Your task to perform on an android device: Go to eBay Image 0: 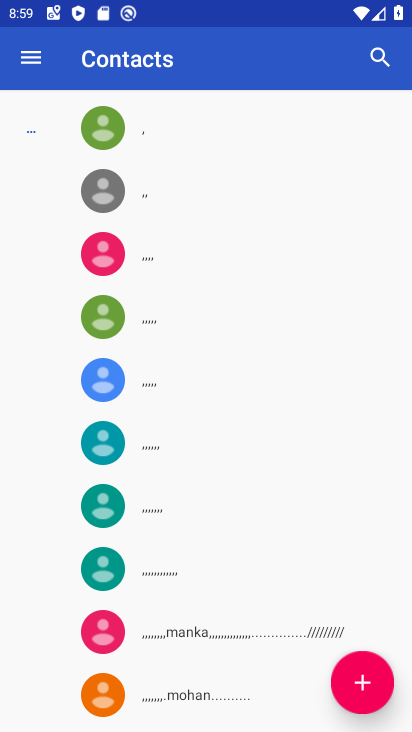
Step 0: press home button
Your task to perform on an android device: Go to eBay Image 1: 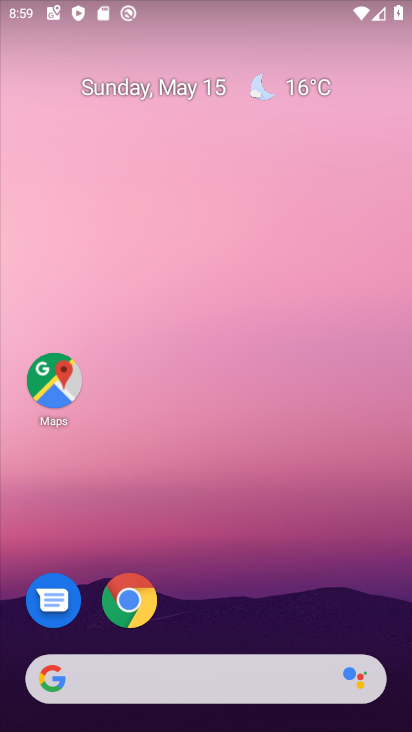
Step 1: drag from (228, 678) to (251, 76)
Your task to perform on an android device: Go to eBay Image 2: 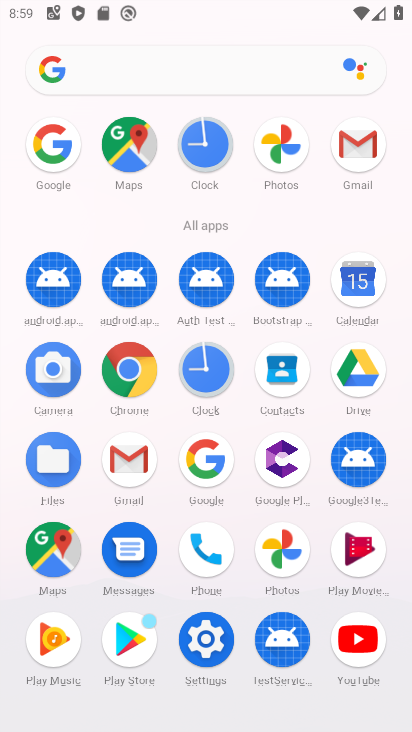
Step 2: click (48, 139)
Your task to perform on an android device: Go to eBay Image 3: 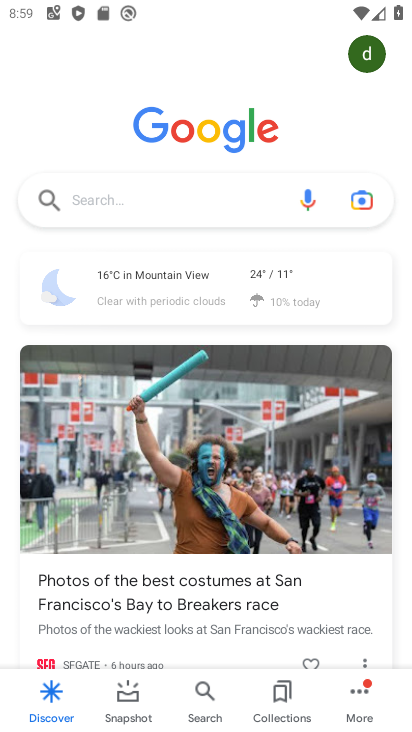
Step 3: click (160, 213)
Your task to perform on an android device: Go to eBay Image 4: 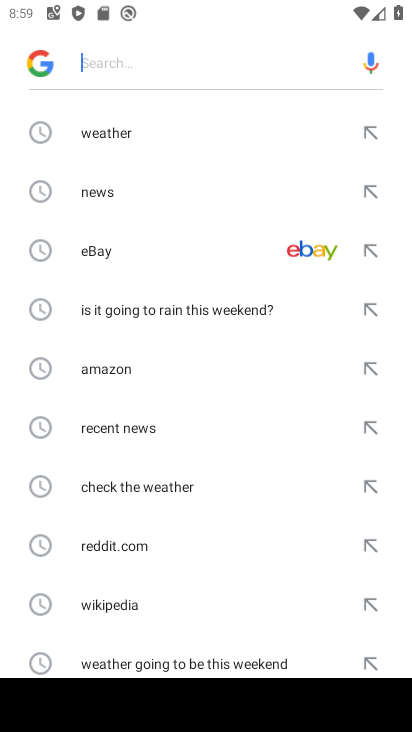
Step 4: click (153, 251)
Your task to perform on an android device: Go to eBay Image 5: 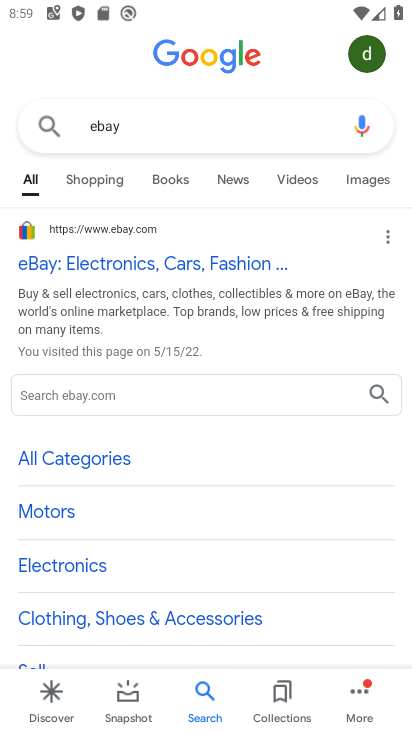
Step 5: task complete